Your task to perform on an android device: What is the recent news? Image 0: 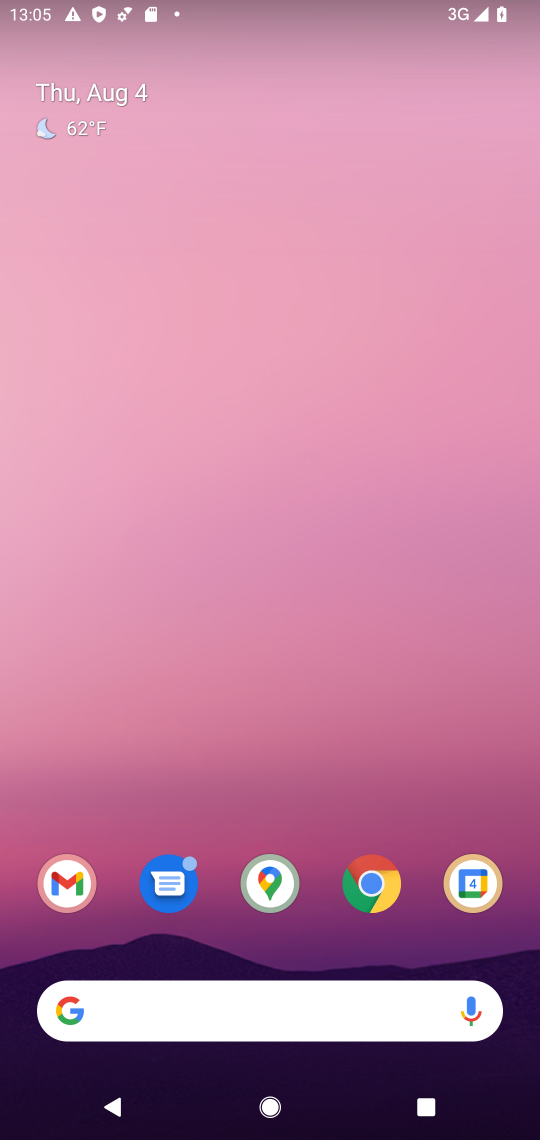
Step 0: drag from (263, 934) to (260, 468)
Your task to perform on an android device: What is the recent news? Image 1: 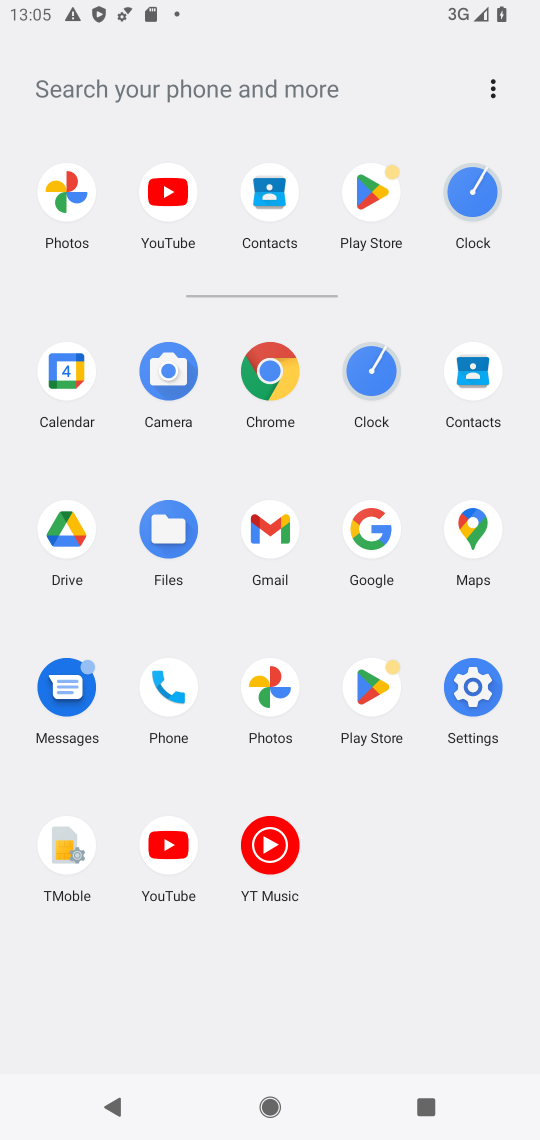
Step 1: drag from (300, 827) to (308, 436)
Your task to perform on an android device: What is the recent news? Image 2: 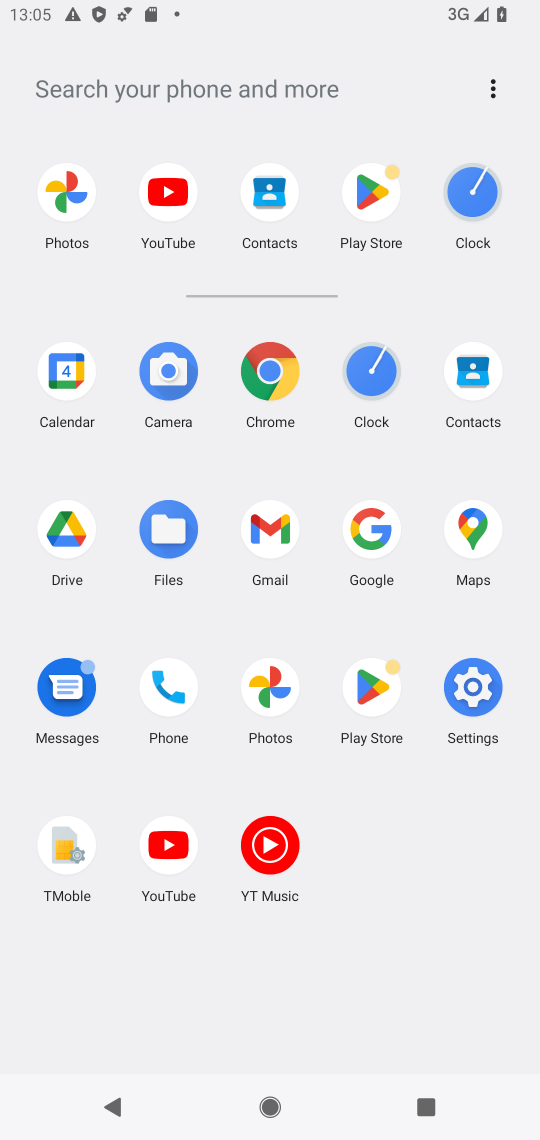
Step 2: drag from (345, 885) to (321, 493)
Your task to perform on an android device: What is the recent news? Image 3: 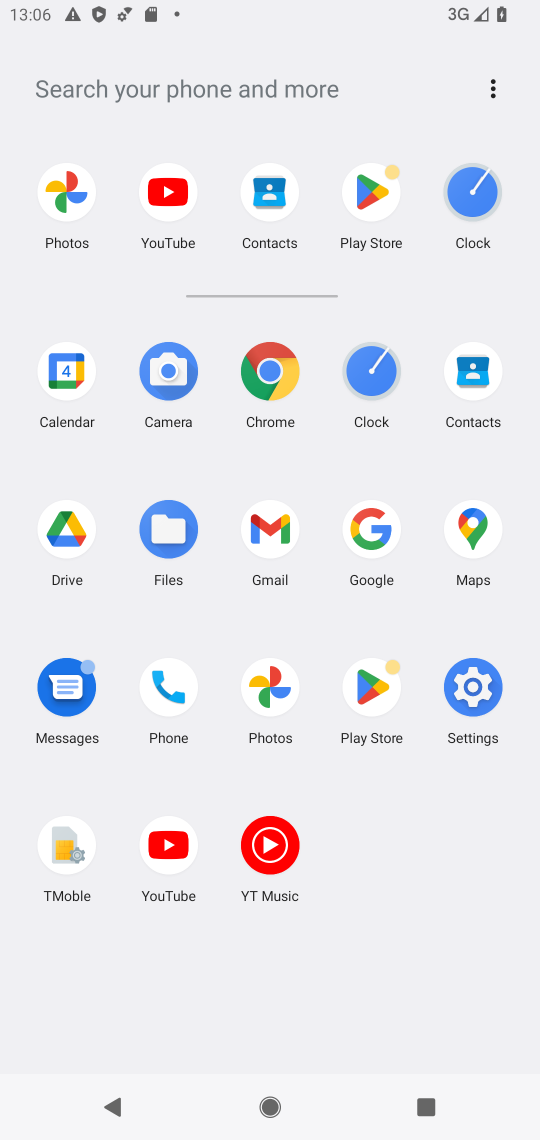
Step 3: click (394, 546)
Your task to perform on an android device: What is the recent news? Image 4: 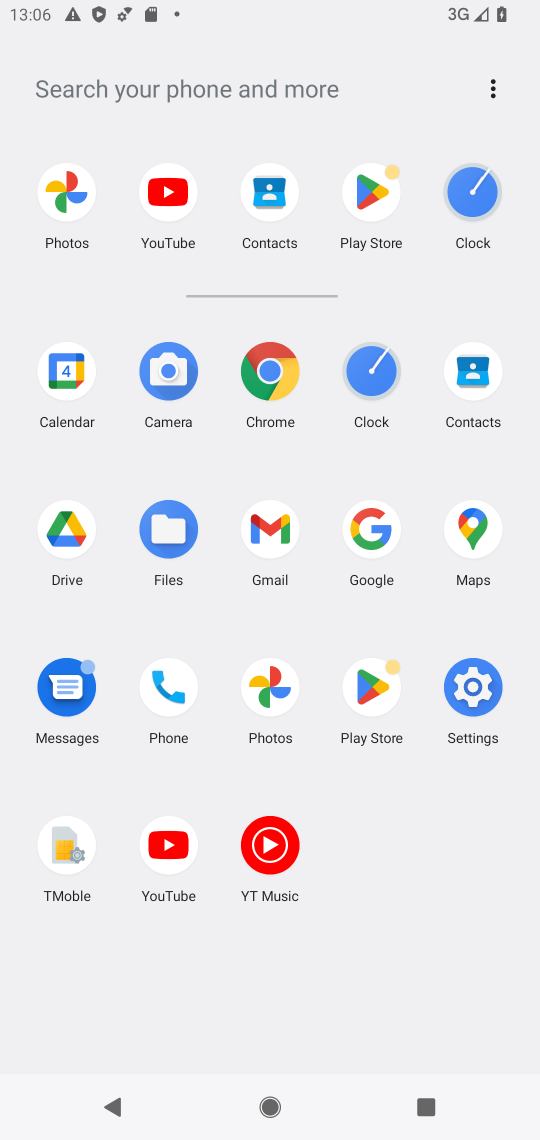
Step 4: drag from (323, 458) to (461, 147)
Your task to perform on an android device: What is the recent news? Image 5: 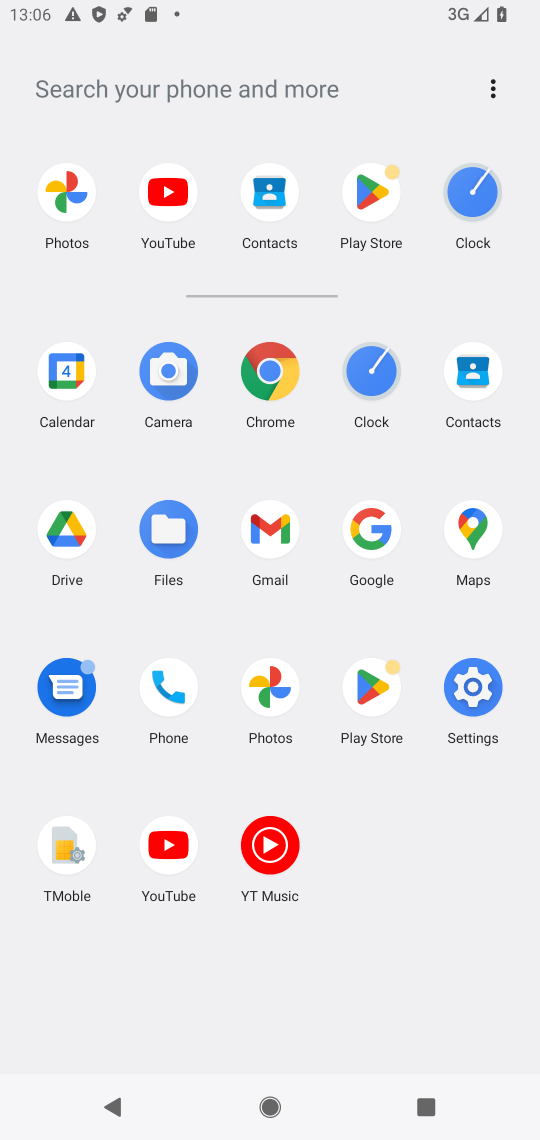
Step 5: drag from (323, 730) to (343, 349)
Your task to perform on an android device: What is the recent news? Image 6: 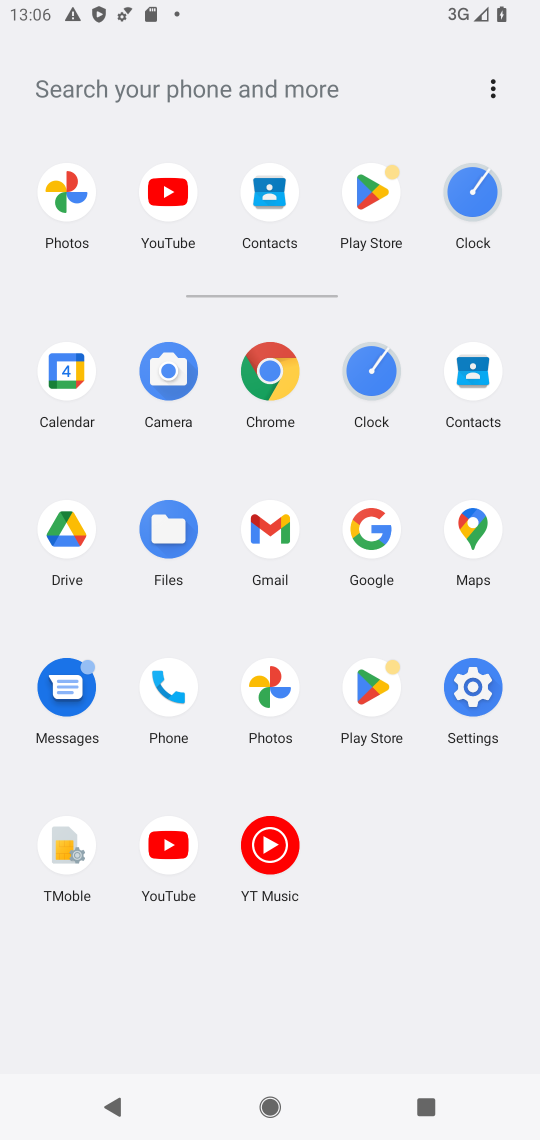
Step 6: drag from (323, 631) to (322, 307)
Your task to perform on an android device: What is the recent news? Image 7: 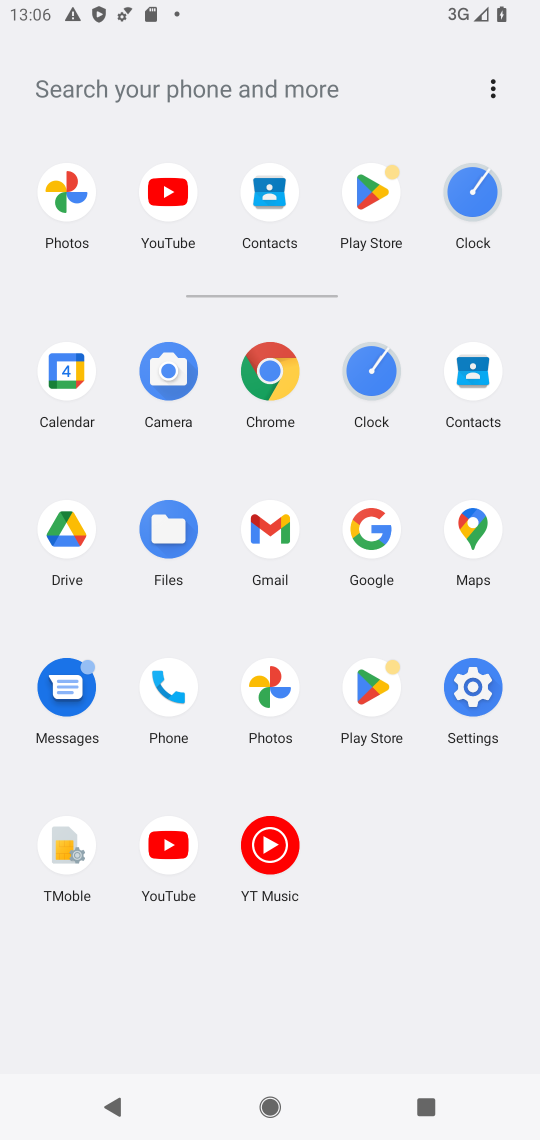
Step 7: drag from (301, 324) to (428, 839)
Your task to perform on an android device: What is the recent news? Image 8: 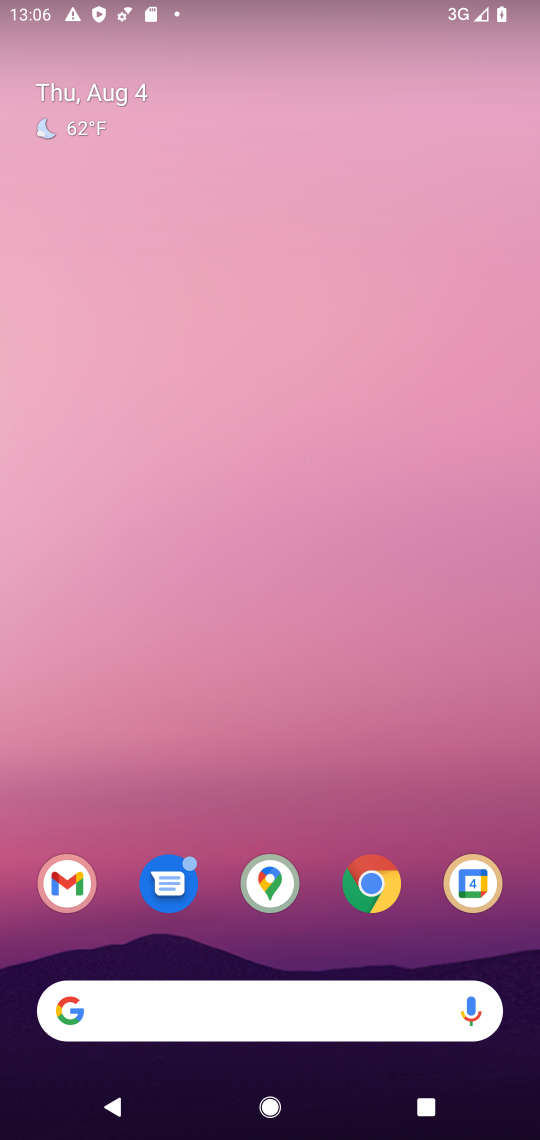
Step 8: drag from (238, 932) to (232, 237)
Your task to perform on an android device: What is the recent news? Image 9: 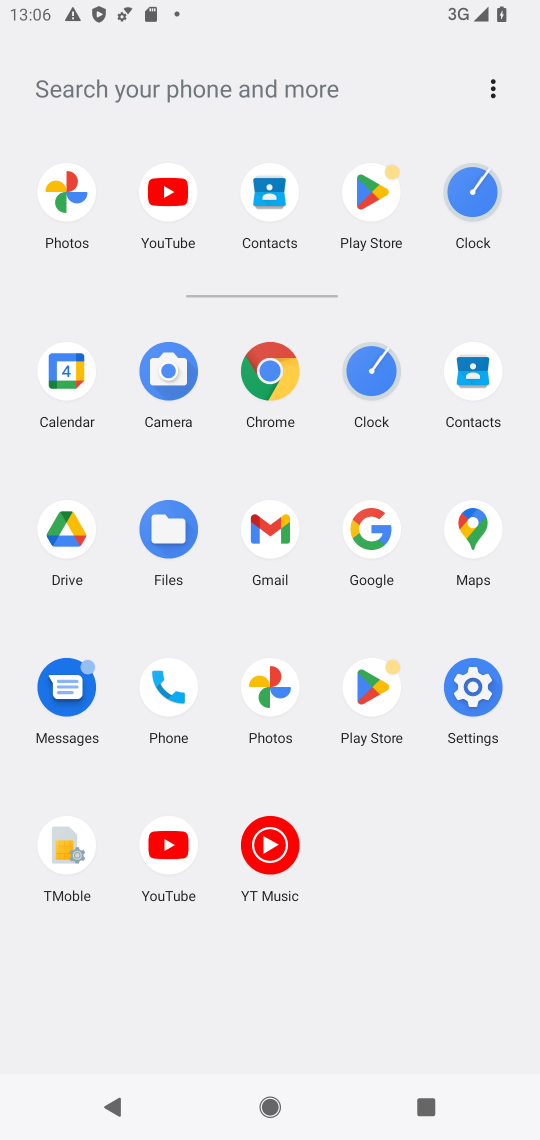
Step 9: click (193, 85)
Your task to perform on an android device: What is the recent news? Image 10: 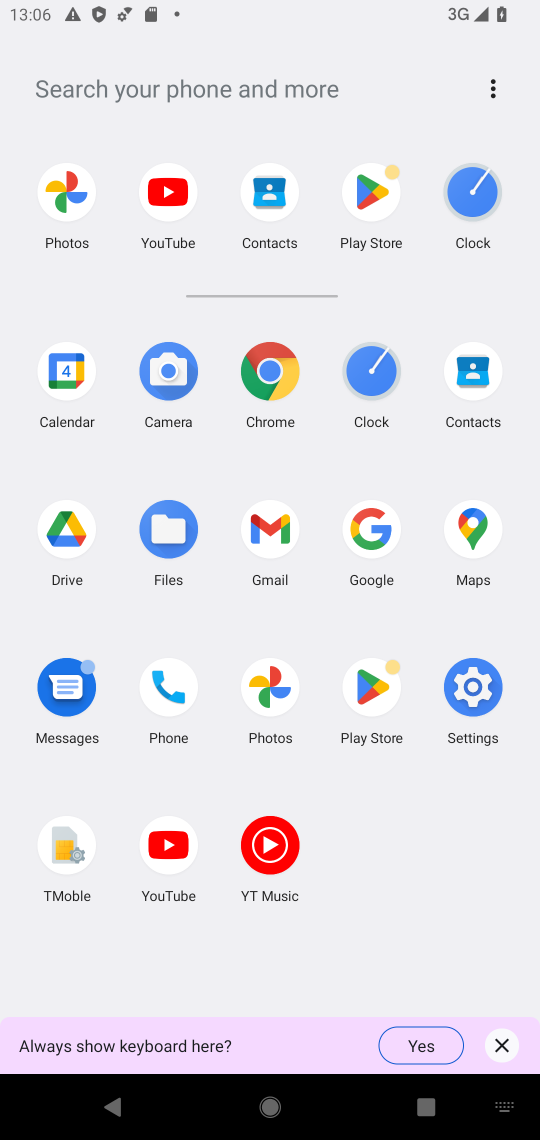
Step 10: click (175, 97)
Your task to perform on an android device: What is the recent news? Image 11: 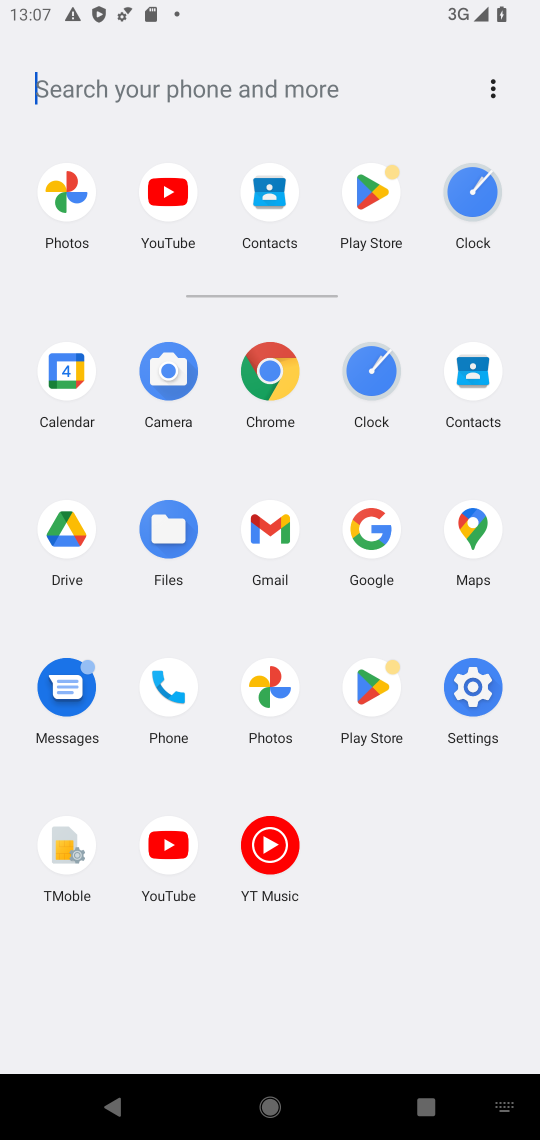
Step 11: type "recent news"
Your task to perform on an android device: What is the recent news? Image 12: 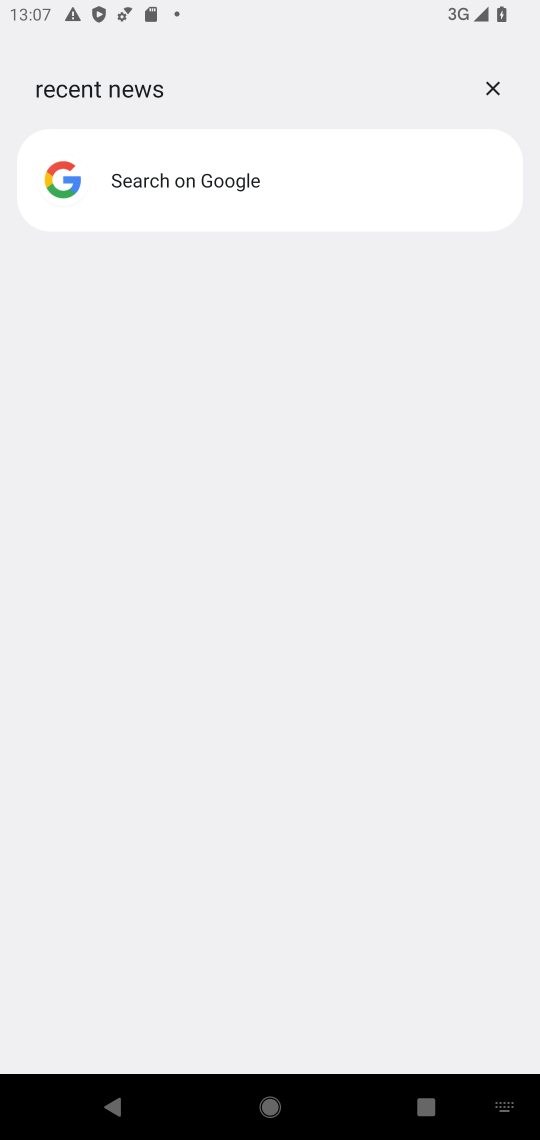
Step 12: click (190, 178)
Your task to perform on an android device: What is the recent news? Image 13: 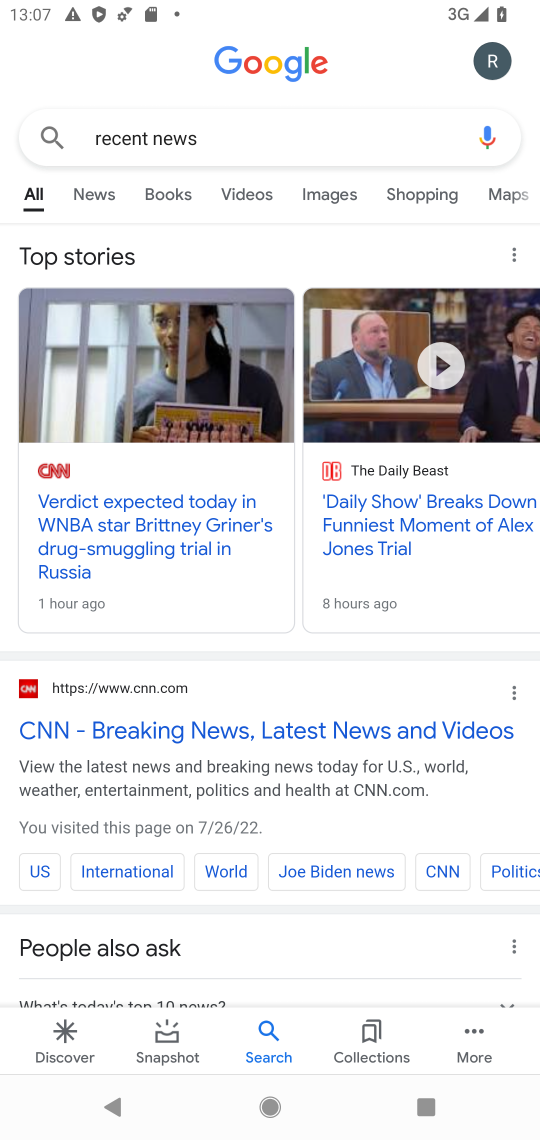
Step 13: click (178, 729)
Your task to perform on an android device: What is the recent news? Image 14: 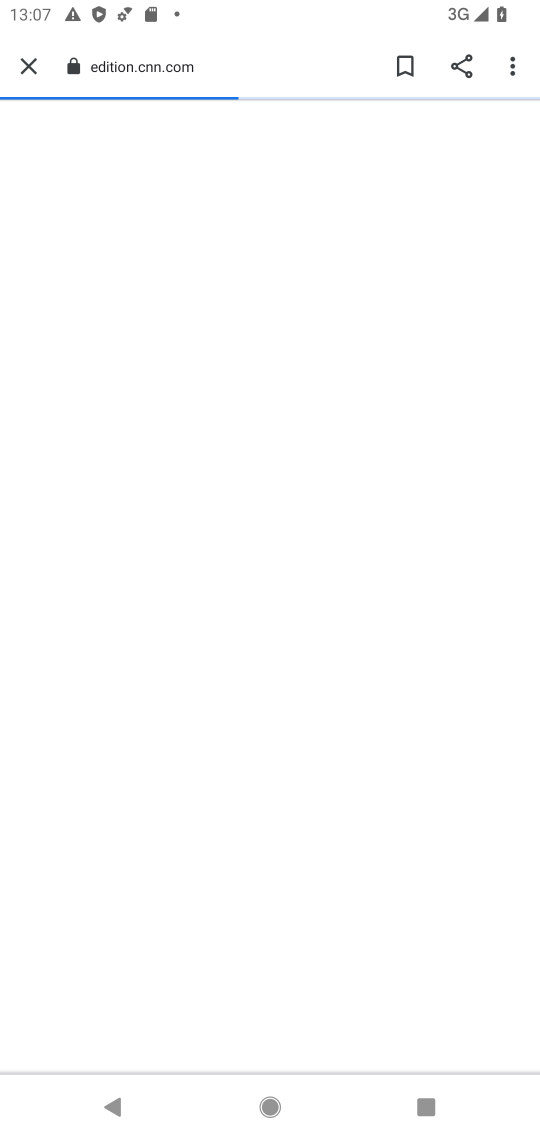
Step 14: task complete